Your task to perform on an android device: empty trash in the gmail app Image 0: 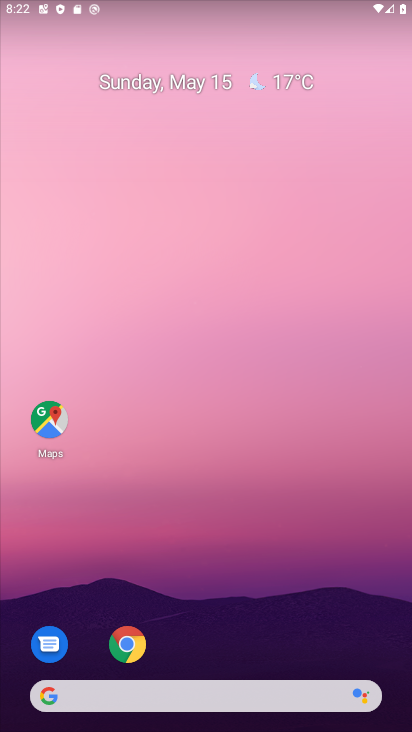
Step 0: drag from (284, 707) to (239, 6)
Your task to perform on an android device: empty trash in the gmail app Image 1: 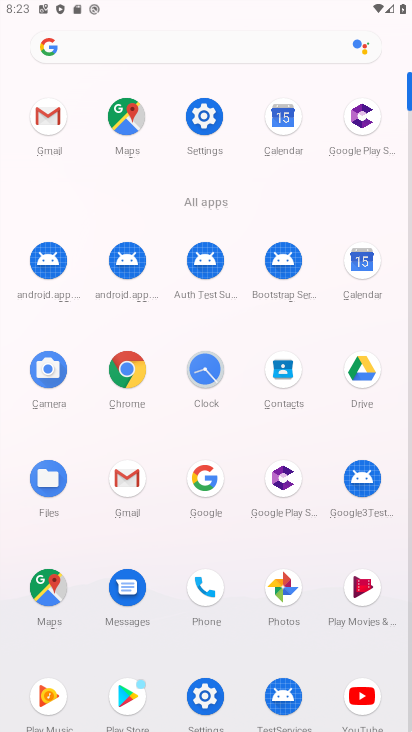
Step 1: click (61, 116)
Your task to perform on an android device: empty trash in the gmail app Image 2: 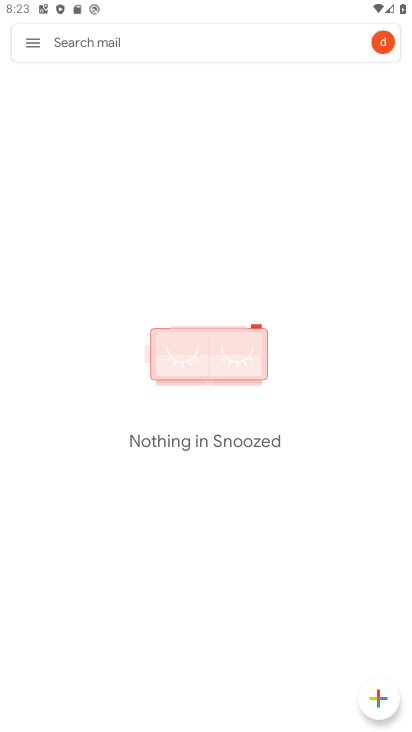
Step 2: click (45, 33)
Your task to perform on an android device: empty trash in the gmail app Image 3: 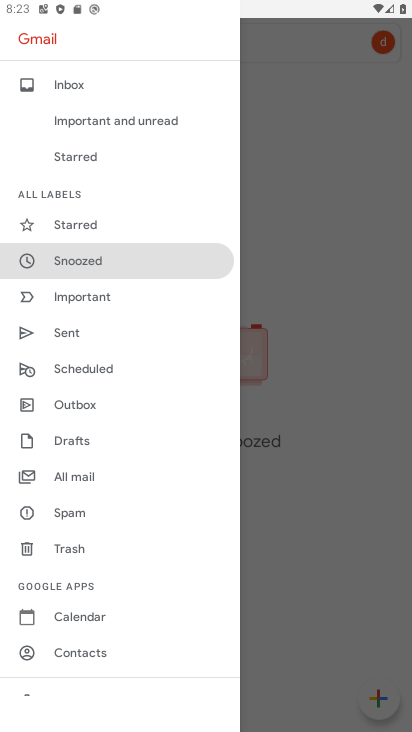
Step 3: click (84, 540)
Your task to perform on an android device: empty trash in the gmail app Image 4: 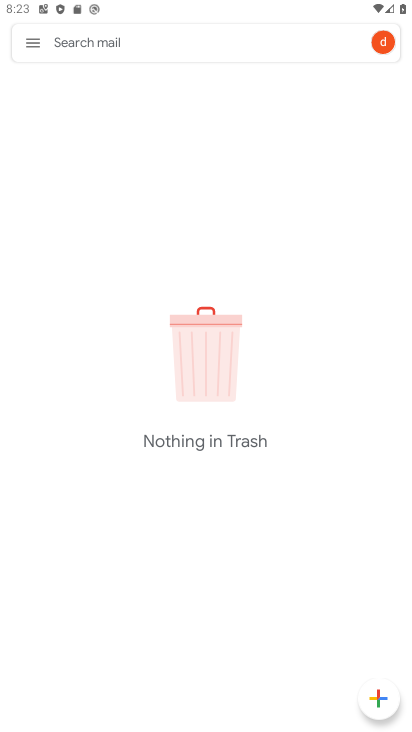
Step 4: task complete